Your task to perform on an android device: find which apps use the phone's location Image 0: 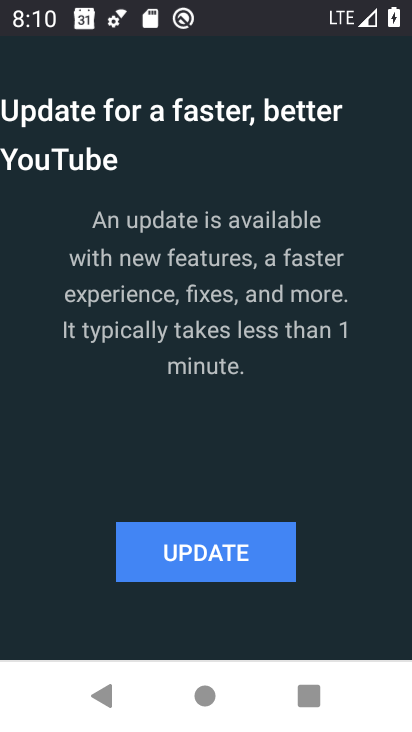
Step 0: press home button
Your task to perform on an android device: find which apps use the phone's location Image 1: 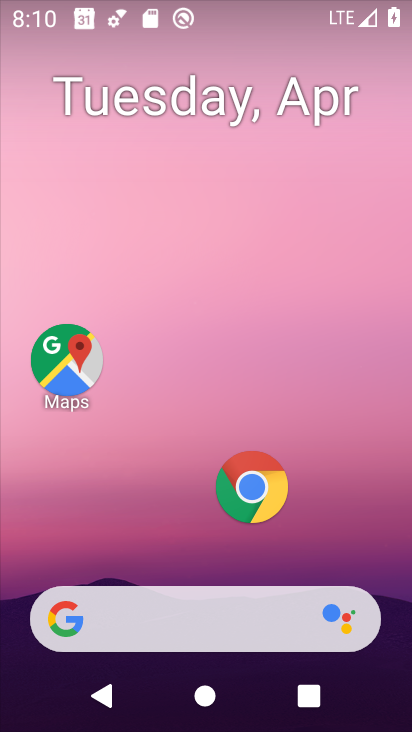
Step 1: drag from (267, 705) to (258, 28)
Your task to perform on an android device: find which apps use the phone's location Image 2: 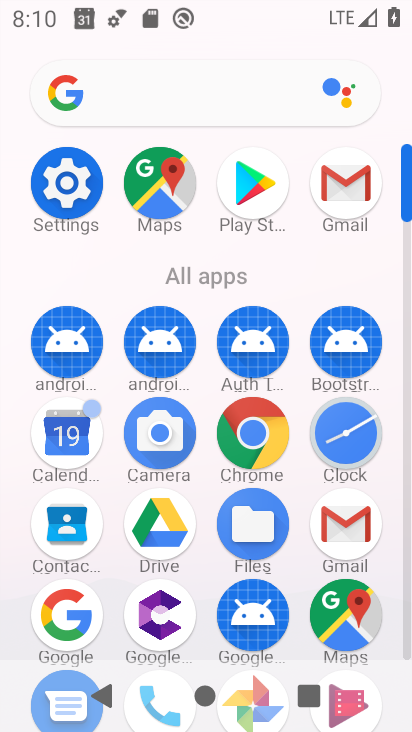
Step 2: click (70, 189)
Your task to perform on an android device: find which apps use the phone's location Image 3: 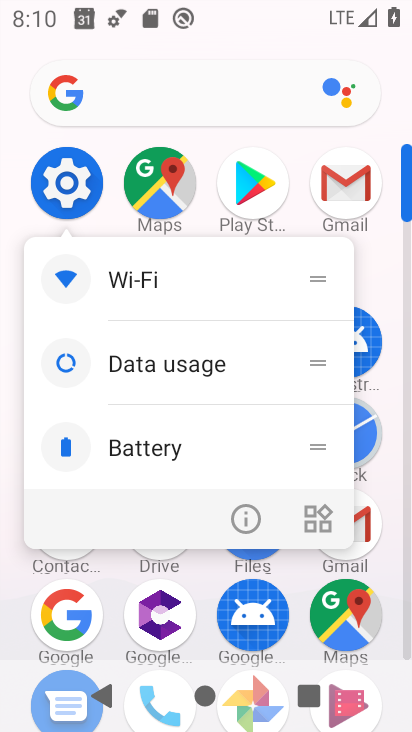
Step 3: click (70, 190)
Your task to perform on an android device: find which apps use the phone's location Image 4: 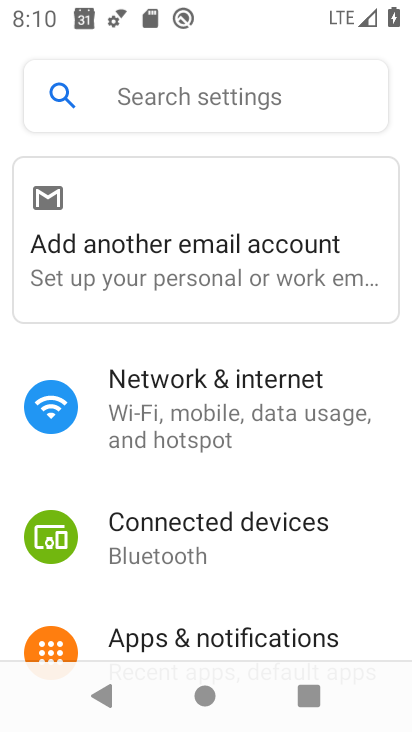
Step 4: drag from (288, 597) to (261, 110)
Your task to perform on an android device: find which apps use the phone's location Image 5: 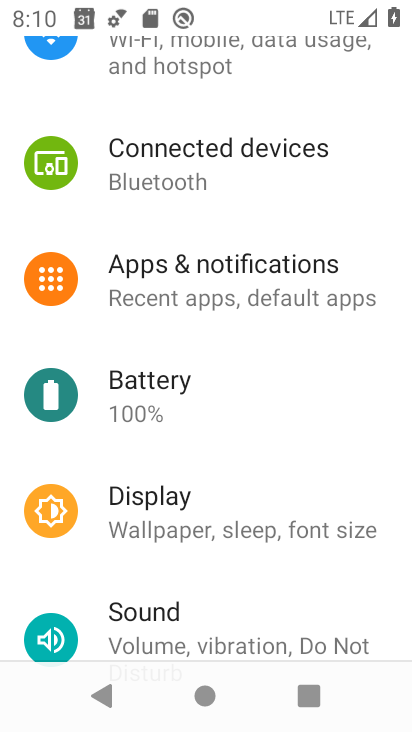
Step 5: drag from (283, 599) to (258, 46)
Your task to perform on an android device: find which apps use the phone's location Image 6: 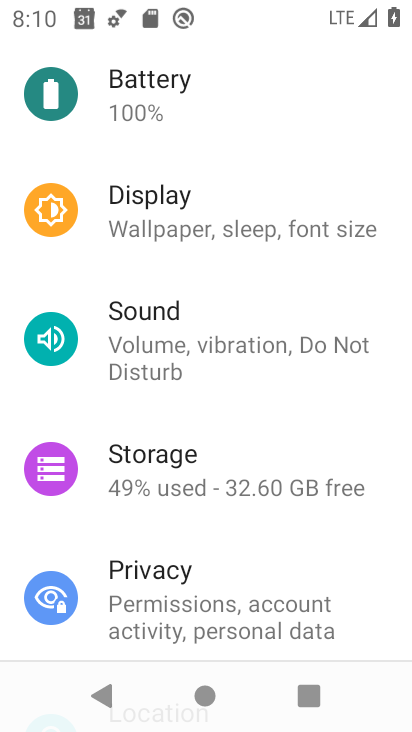
Step 6: drag from (301, 561) to (351, 3)
Your task to perform on an android device: find which apps use the phone's location Image 7: 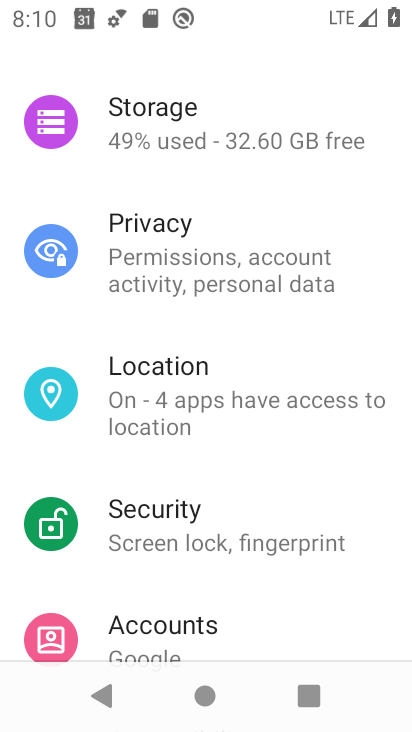
Step 7: click (221, 420)
Your task to perform on an android device: find which apps use the phone's location Image 8: 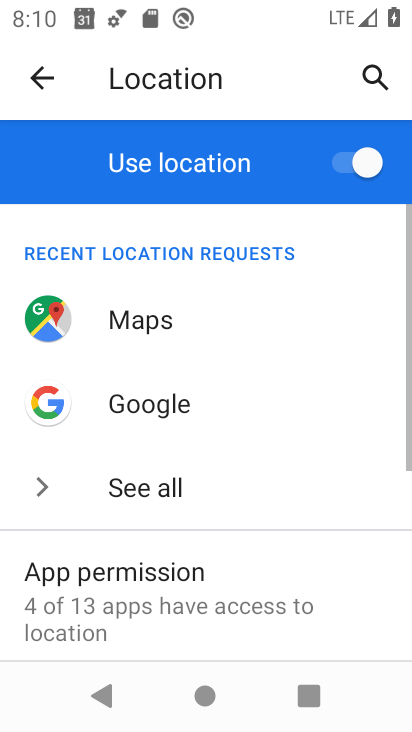
Step 8: click (164, 579)
Your task to perform on an android device: find which apps use the phone's location Image 9: 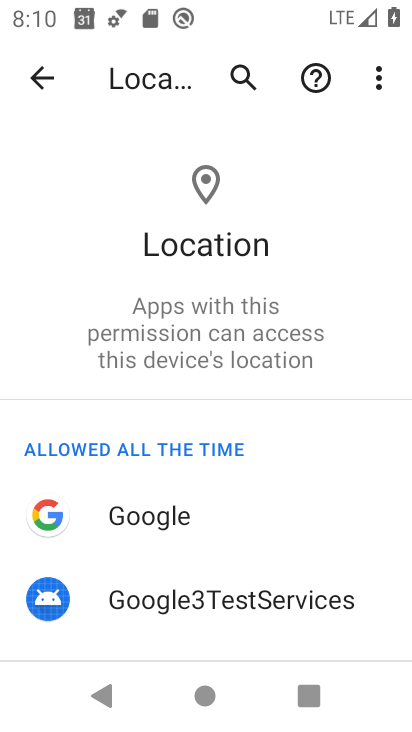
Step 9: task complete